Your task to perform on an android device: Open Google Maps and go to "Timeline" Image 0: 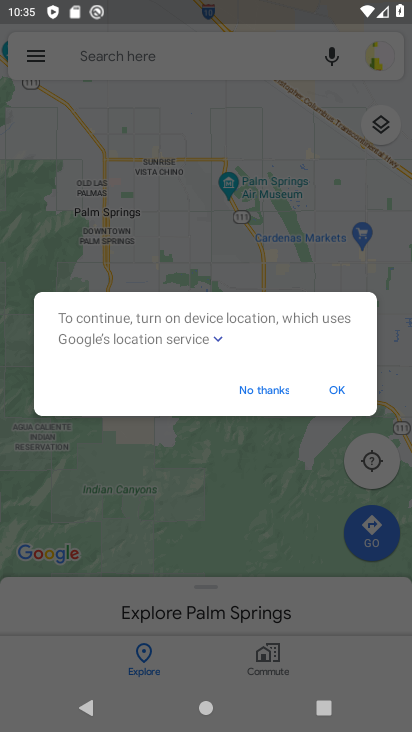
Step 0: click (325, 387)
Your task to perform on an android device: Open Google Maps and go to "Timeline" Image 1: 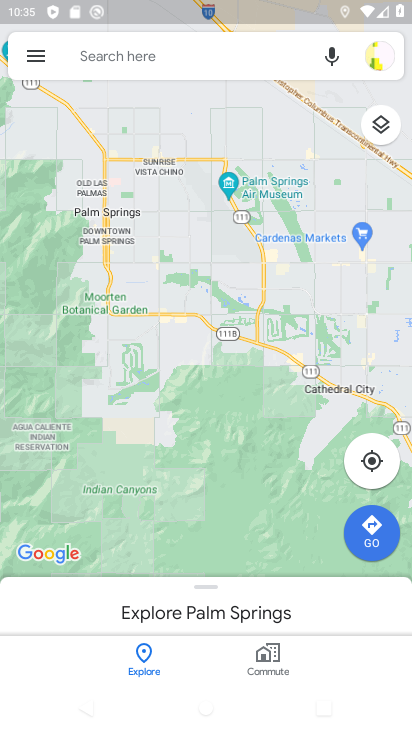
Step 1: press home button
Your task to perform on an android device: Open Google Maps and go to "Timeline" Image 2: 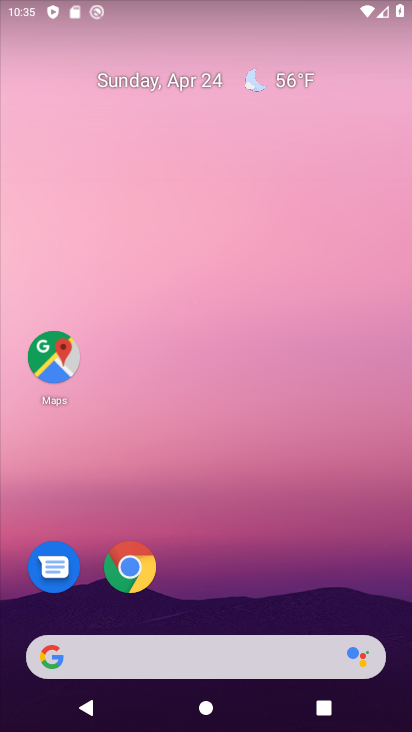
Step 2: click (57, 342)
Your task to perform on an android device: Open Google Maps and go to "Timeline" Image 3: 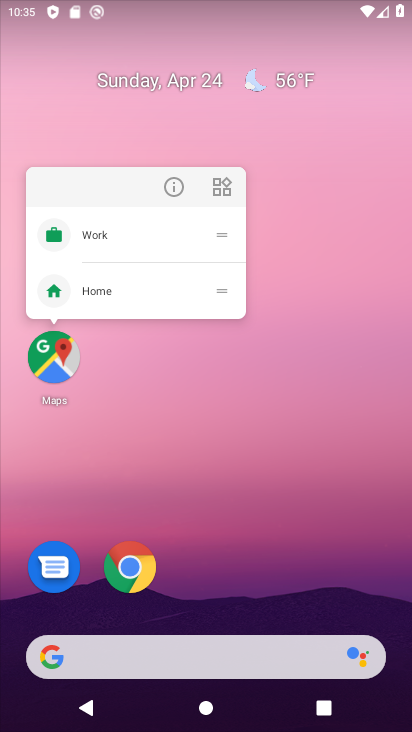
Step 3: click (57, 343)
Your task to perform on an android device: Open Google Maps and go to "Timeline" Image 4: 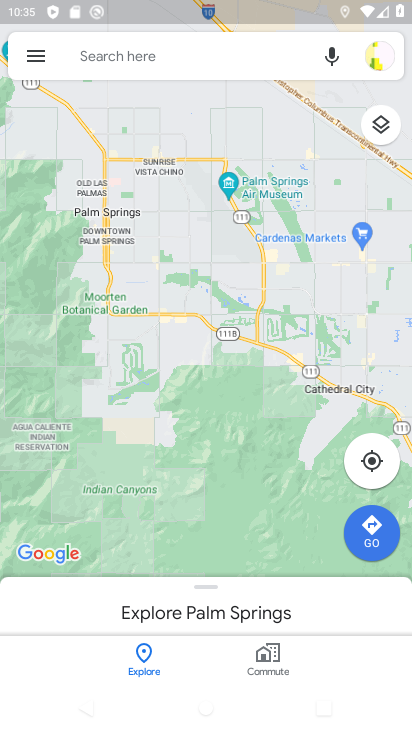
Step 4: click (34, 57)
Your task to perform on an android device: Open Google Maps and go to "Timeline" Image 5: 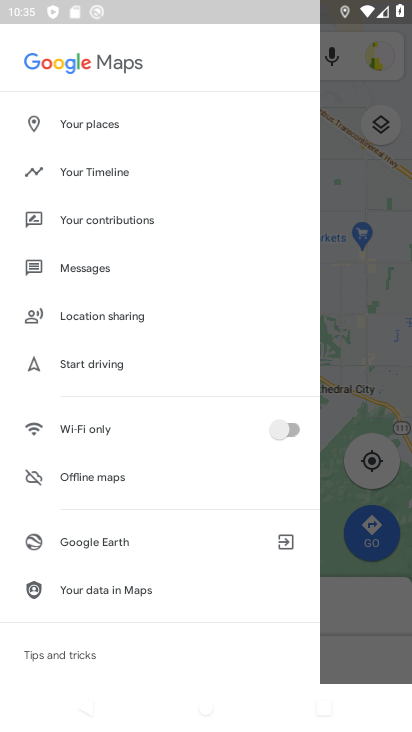
Step 5: click (73, 168)
Your task to perform on an android device: Open Google Maps and go to "Timeline" Image 6: 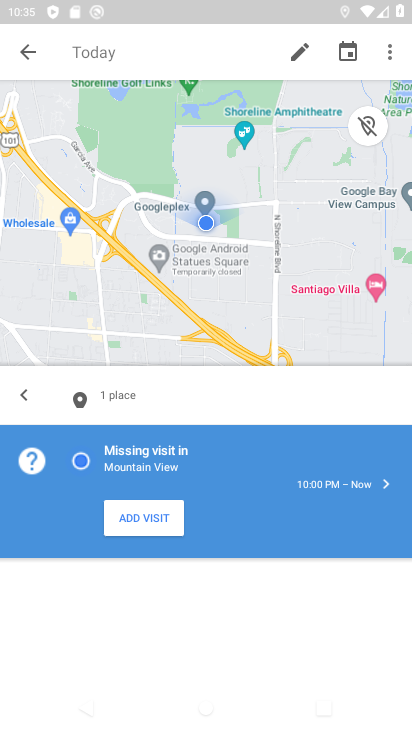
Step 6: task complete